Your task to perform on an android device: move a message to another label in the gmail app Image 0: 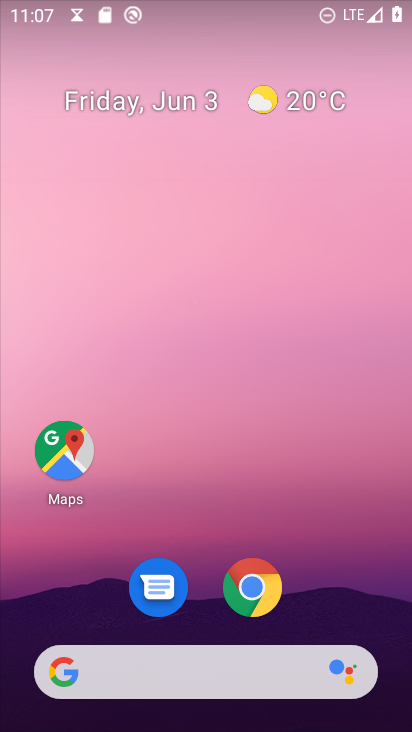
Step 0: drag from (316, 468) to (163, 56)
Your task to perform on an android device: move a message to another label in the gmail app Image 1: 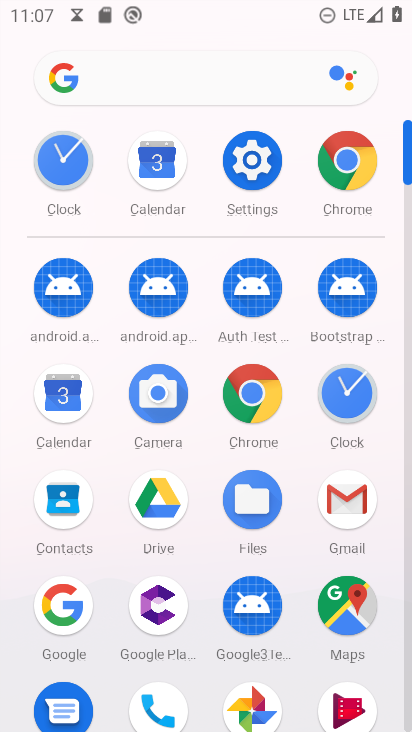
Step 1: click (329, 495)
Your task to perform on an android device: move a message to another label in the gmail app Image 2: 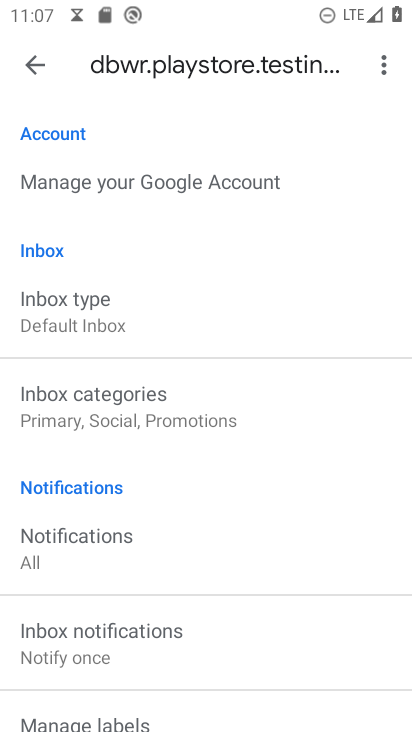
Step 2: click (24, 81)
Your task to perform on an android device: move a message to another label in the gmail app Image 3: 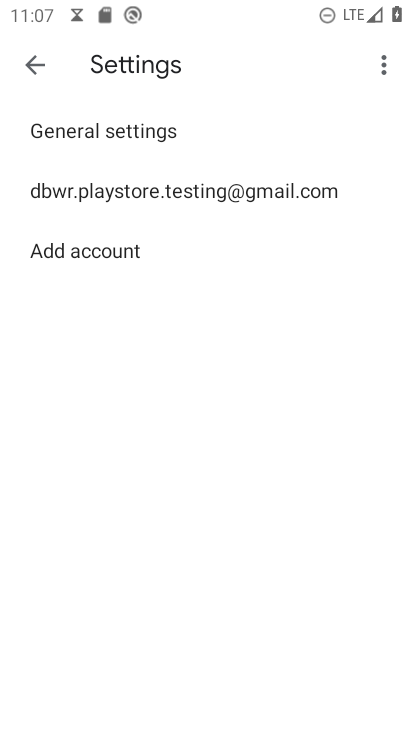
Step 3: click (43, 50)
Your task to perform on an android device: move a message to another label in the gmail app Image 4: 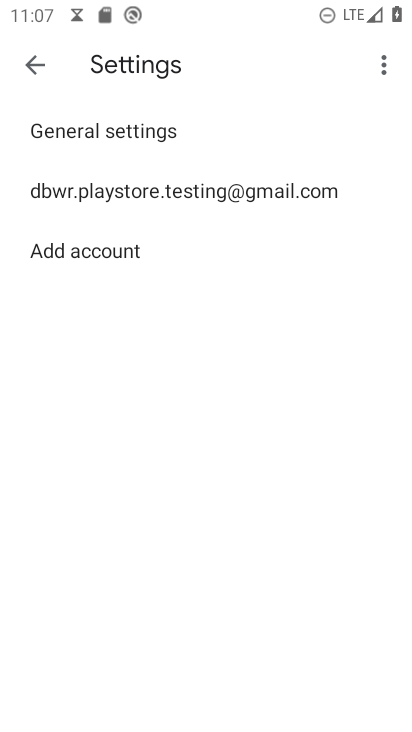
Step 4: click (35, 60)
Your task to perform on an android device: move a message to another label in the gmail app Image 5: 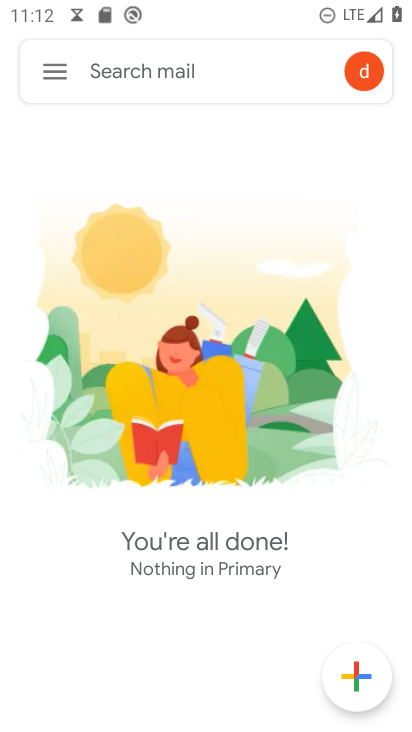
Step 5: task complete